Your task to perform on an android device: open app "eBay: The shopping marketplace" Image 0: 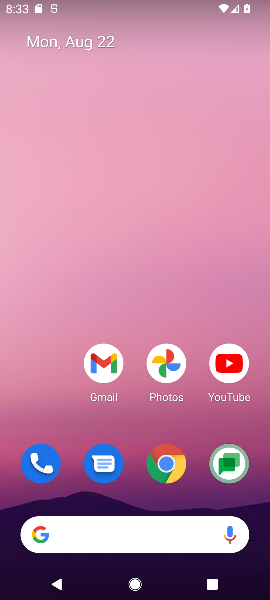
Step 0: drag from (140, 447) to (119, 2)
Your task to perform on an android device: open app "eBay: The shopping marketplace" Image 1: 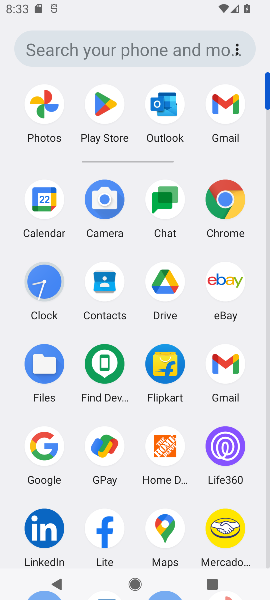
Step 1: click (103, 94)
Your task to perform on an android device: open app "eBay: The shopping marketplace" Image 2: 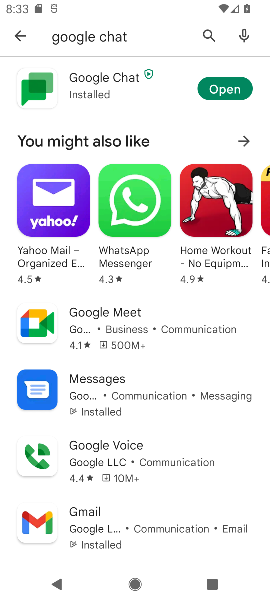
Step 2: click (22, 32)
Your task to perform on an android device: open app "eBay: The shopping marketplace" Image 3: 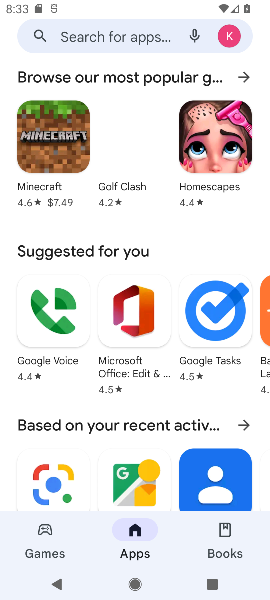
Step 3: click (106, 38)
Your task to perform on an android device: open app "eBay: The shopping marketplace" Image 4: 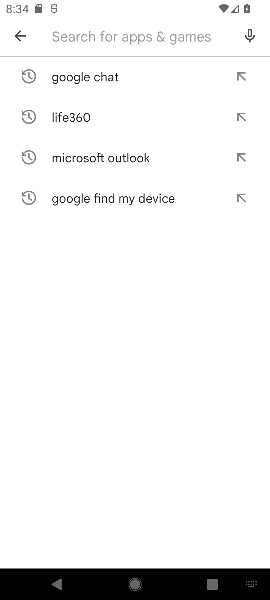
Step 4: type "eBay"
Your task to perform on an android device: open app "eBay: The shopping marketplace" Image 5: 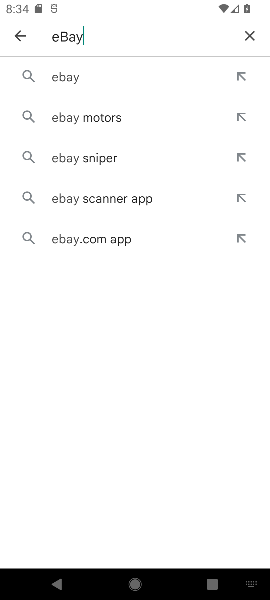
Step 5: click (68, 74)
Your task to perform on an android device: open app "eBay: The shopping marketplace" Image 6: 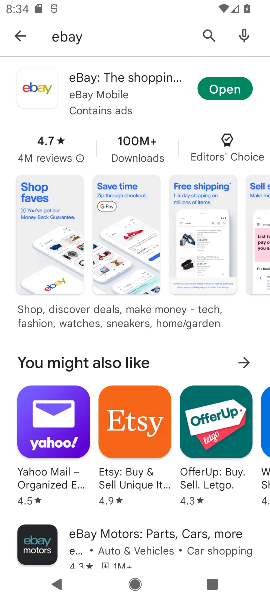
Step 6: click (228, 91)
Your task to perform on an android device: open app "eBay: The shopping marketplace" Image 7: 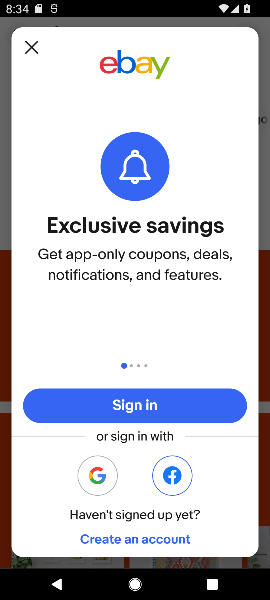
Step 7: task complete